Your task to perform on an android device: Go to Yahoo.com Image 0: 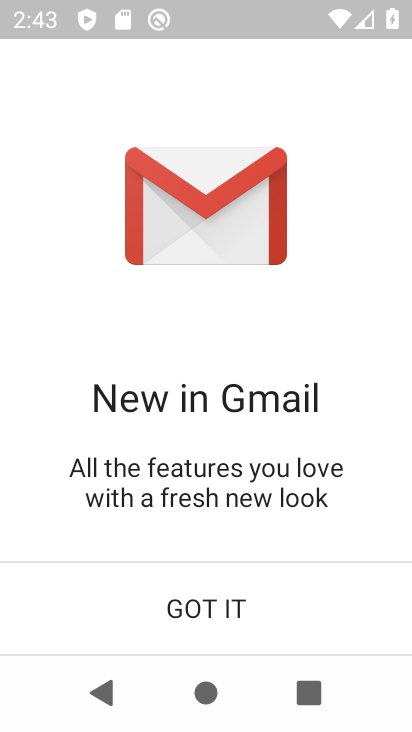
Step 0: press home button
Your task to perform on an android device: Go to Yahoo.com Image 1: 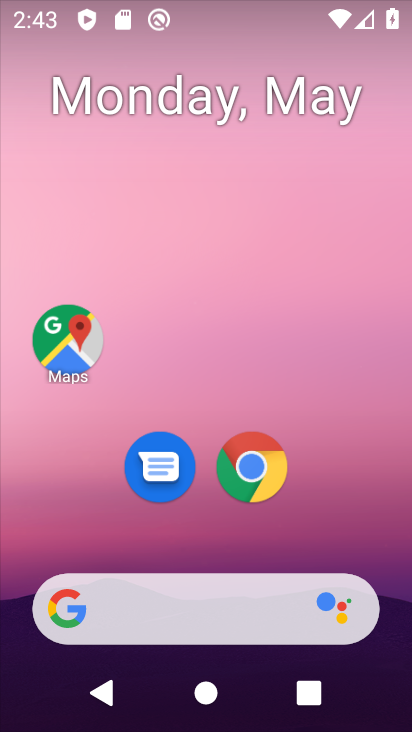
Step 1: click (258, 481)
Your task to perform on an android device: Go to Yahoo.com Image 2: 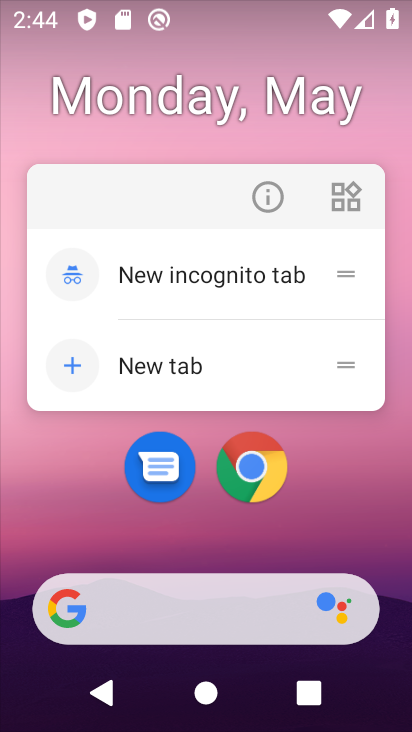
Step 2: click (256, 480)
Your task to perform on an android device: Go to Yahoo.com Image 3: 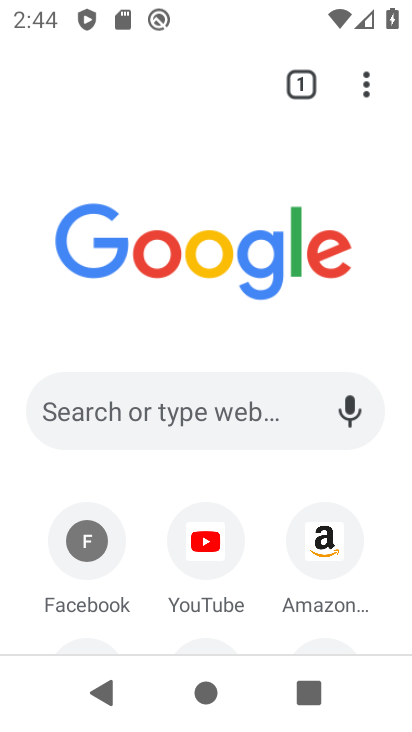
Step 3: click (151, 404)
Your task to perform on an android device: Go to Yahoo.com Image 4: 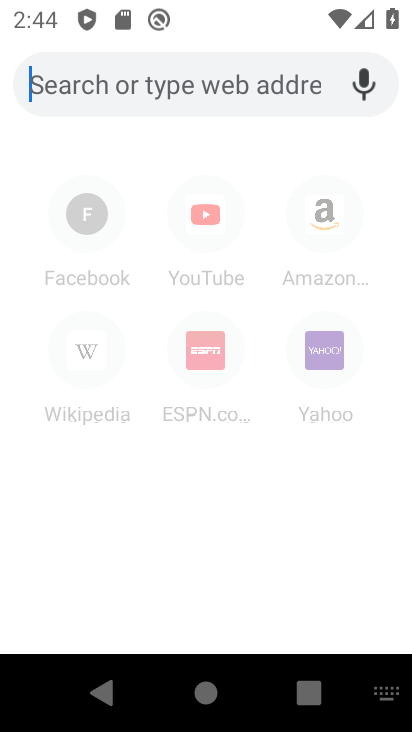
Step 4: type "yahoo.com"
Your task to perform on an android device: Go to Yahoo.com Image 5: 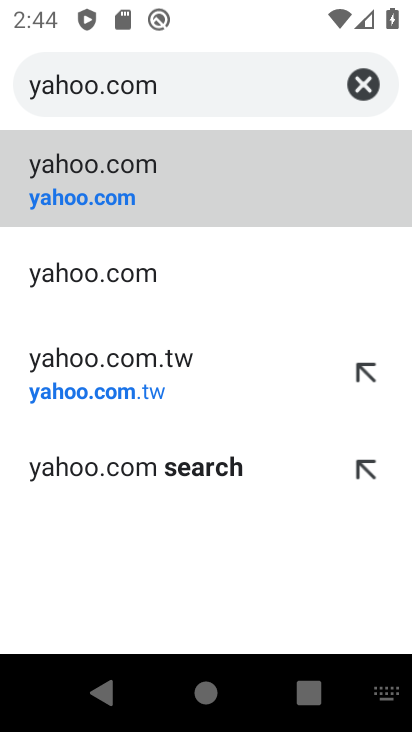
Step 5: click (64, 181)
Your task to perform on an android device: Go to Yahoo.com Image 6: 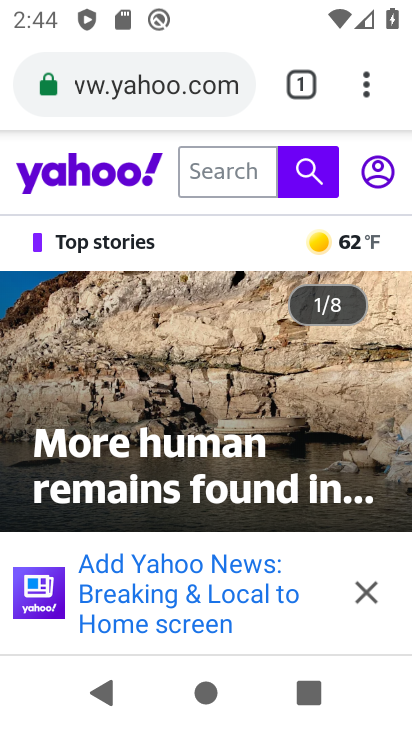
Step 6: task complete